Your task to perform on an android device: delete the emails in spam in the gmail app Image 0: 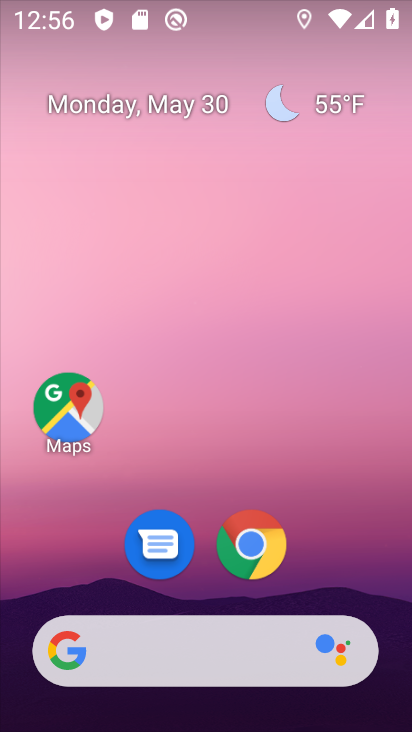
Step 0: drag from (323, 546) to (289, 75)
Your task to perform on an android device: delete the emails in spam in the gmail app Image 1: 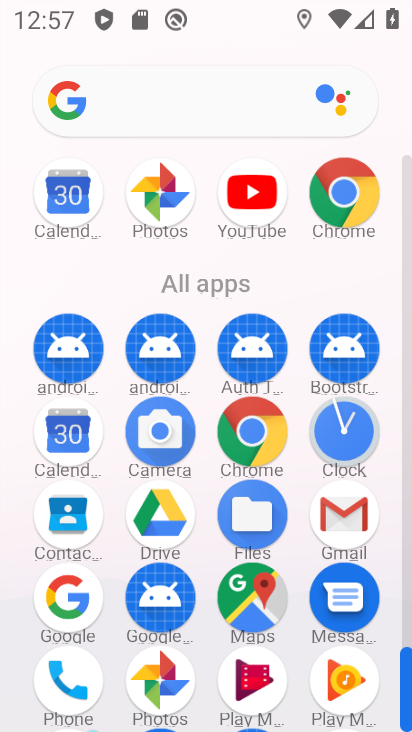
Step 1: click (318, 526)
Your task to perform on an android device: delete the emails in spam in the gmail app Image 2: 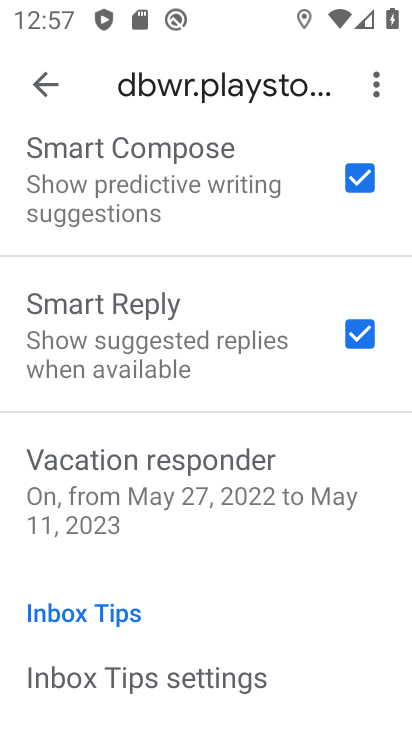
Step 2: click (36, 72)
Your task to perform on an android device: delete the emails in spam in the gmail app Image 3: 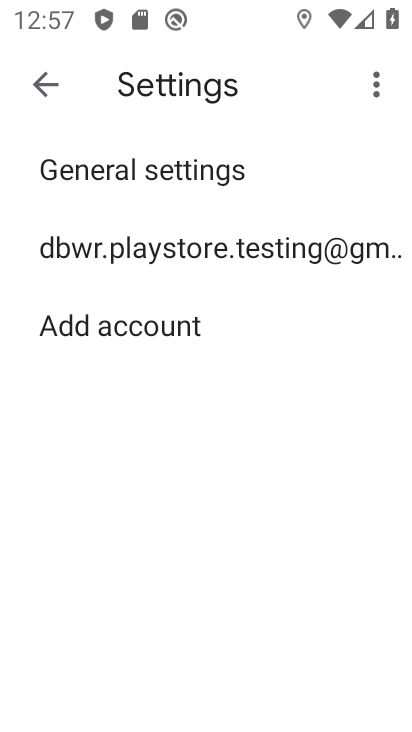
Step 3: click (36, 72)
Your task to perform on an android device: delete the emails in spam in the gmail app Image 4: 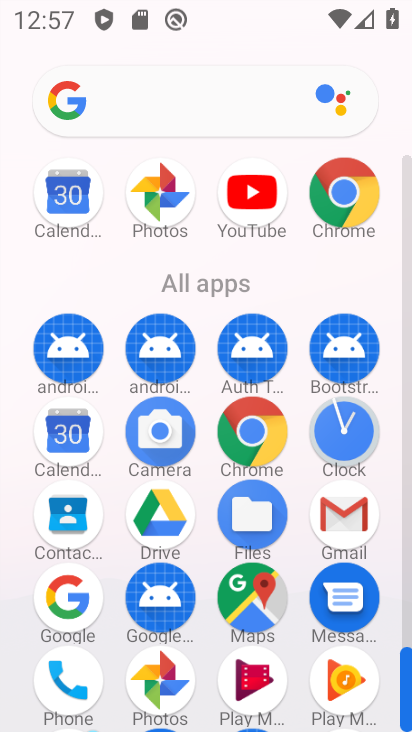
Step 4: click (332, 518)
Your task to perform on an android device: delete the emails in spam in the gmail app Image 5: 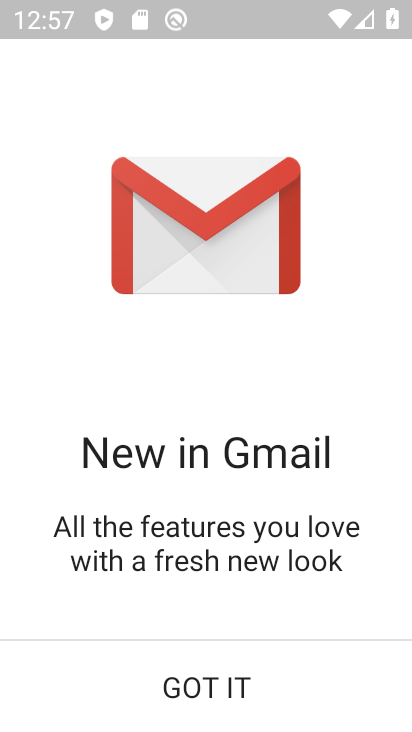
Step 5: click (177, 672)
Your task to perform on an android device: delete the emails in spam in the gmail app Image 6: 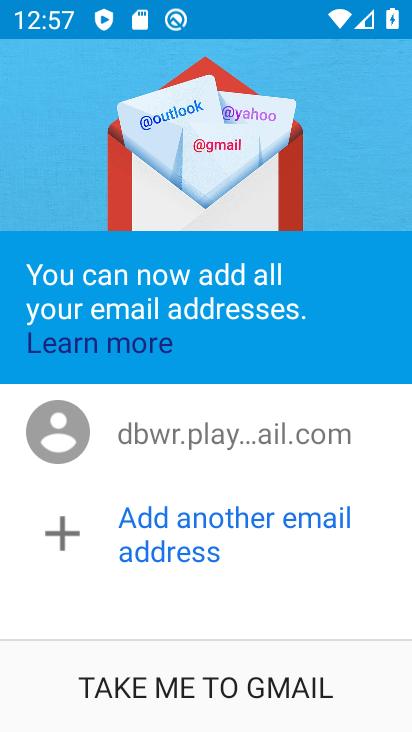
Step 6: click (185, 674)
Your task to perform on an android device: delete the emails in spam in the gmail app Image 7: 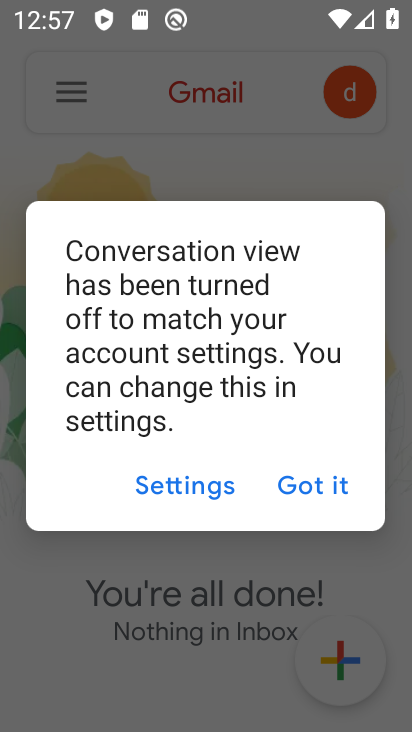
Step 7: click (306, 483)
Your task to perform on an android device: delete the emails in spam in the gmail app Image 8: 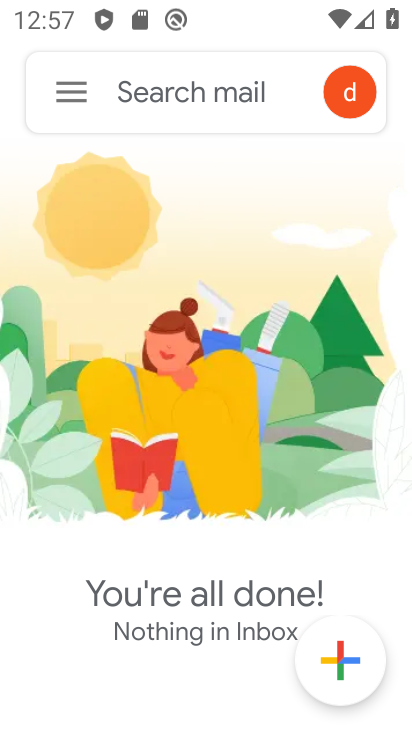
Step 8: click (62, 90)
Your task to perform on an android device: delete the emails in spam in the gmail app Image 9: 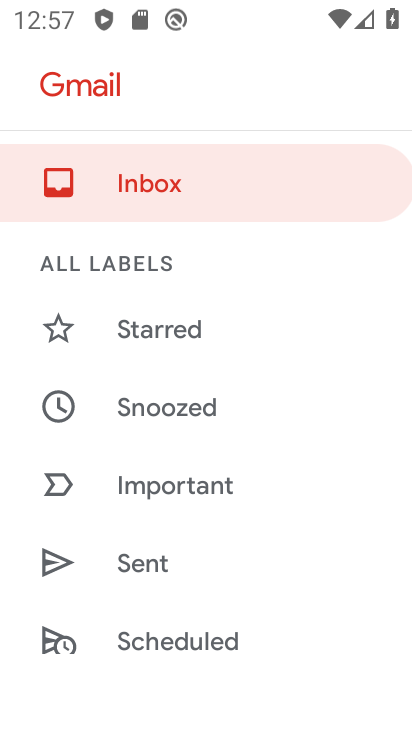
Step 9: drag from (210, 576) to (209, 218)
Your task to perform on an android device: delete the emails in spam in the gmail app Image 10: 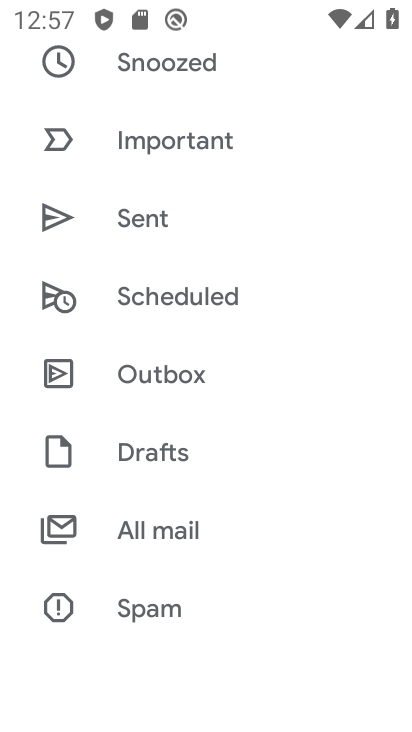
Step 10: drag from (192, 542) to (182, 216)
Your task to perform on an android device: delete the emails in spam in the gmail app Image 11: 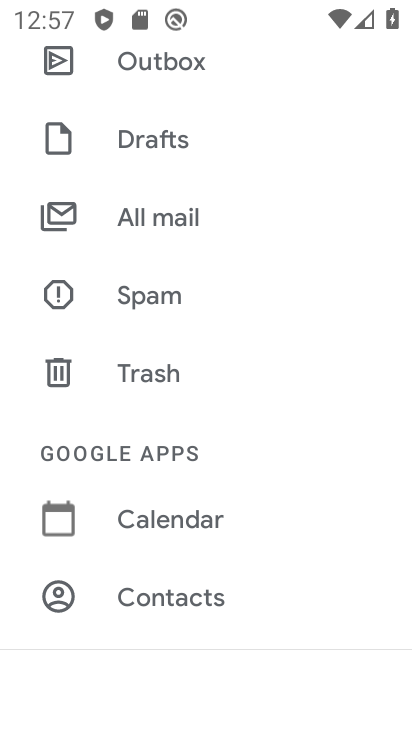
Step 11: drag from (196, 611) to (190, 294)
Your task to perform on an android device: delete the emails in spam in the gmail app Image 12: 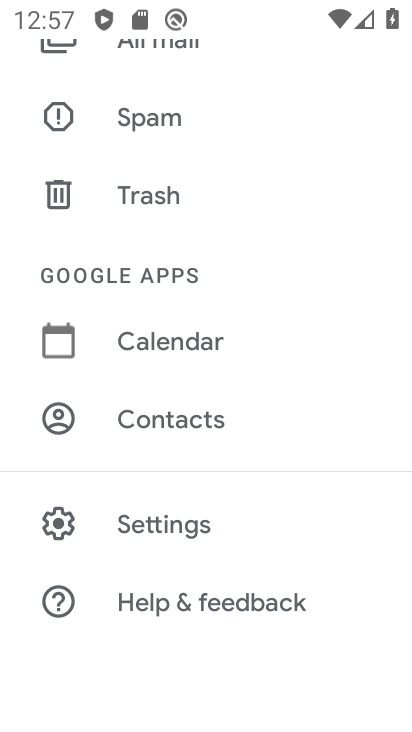
Step 12: drag from (188, 139) to (196, 403)
Your task to perform on an android device: delete the emails in spam in the gmail app Image 13: 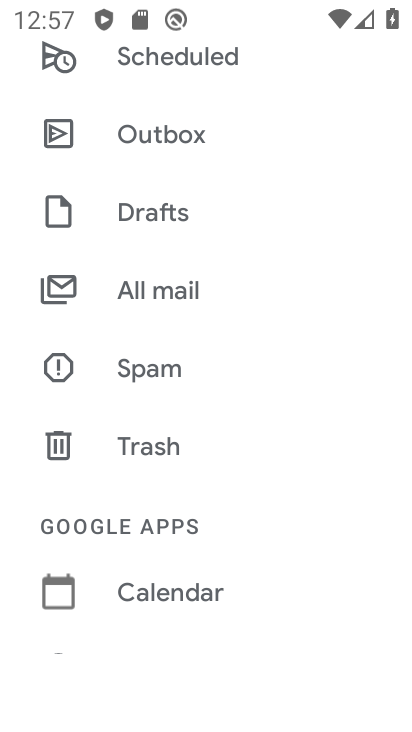
Step 13: click (233, 373)
Your task to perform on an android device: delete the emails in spam in the gmail app Image 14: 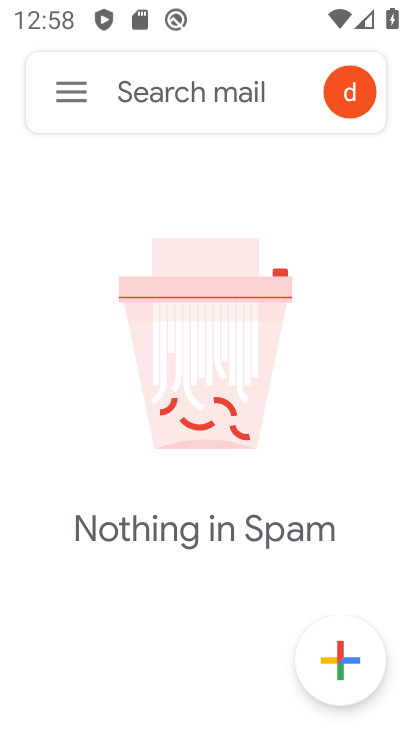
Step 14: task complete